Your task to perform on an android device: toggle notifications settings in the gmail app Image 0: 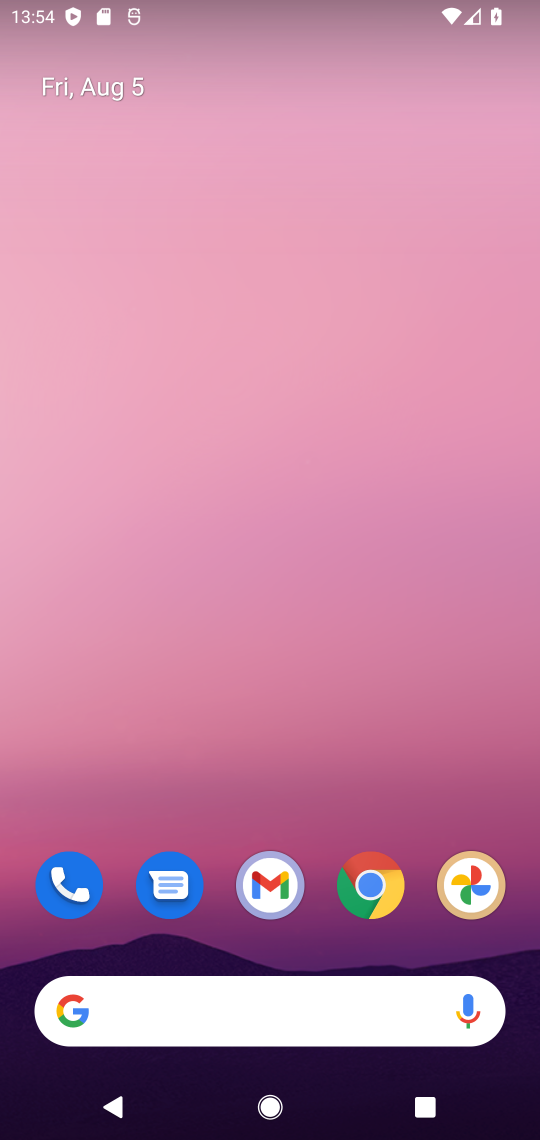
Step 0: click (261, 884)
Your task to perform on an android device: toggle notifications settings in the gmail app Image 1: 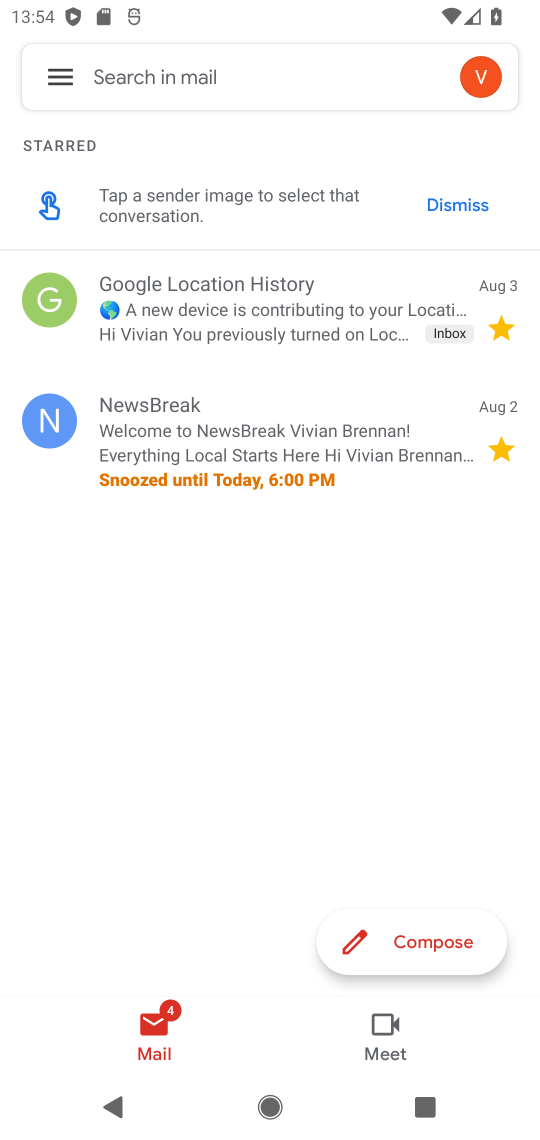
Step 1: click (68, 67)
Your task to perform on an android device: toggle notifications settings in the gmail app Image 2: 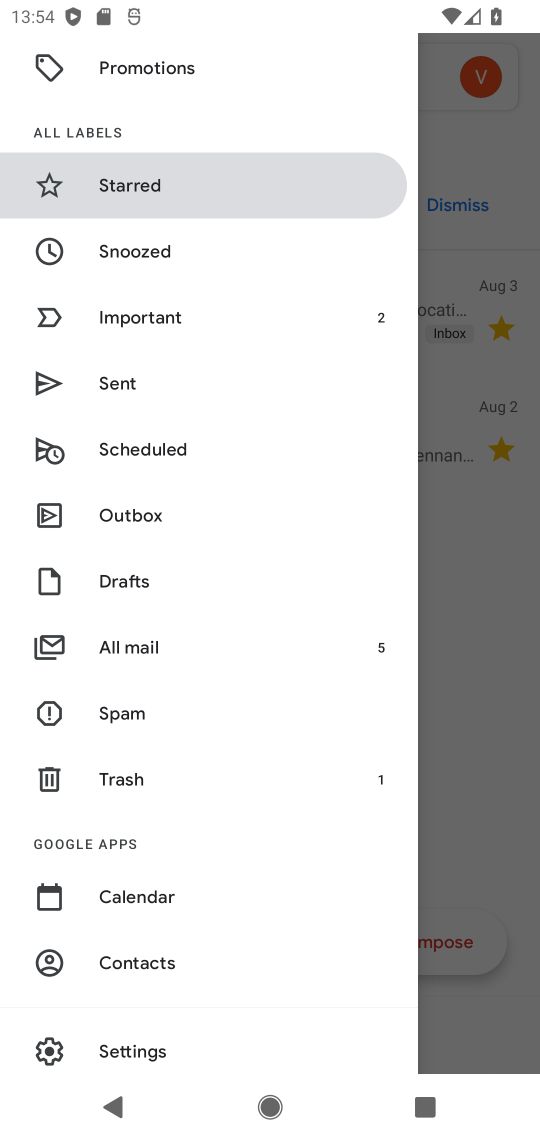
Step 2: click (143, 1050)
Your task to perform on an android device: toggle notifications settings in the gmail app Image 3: 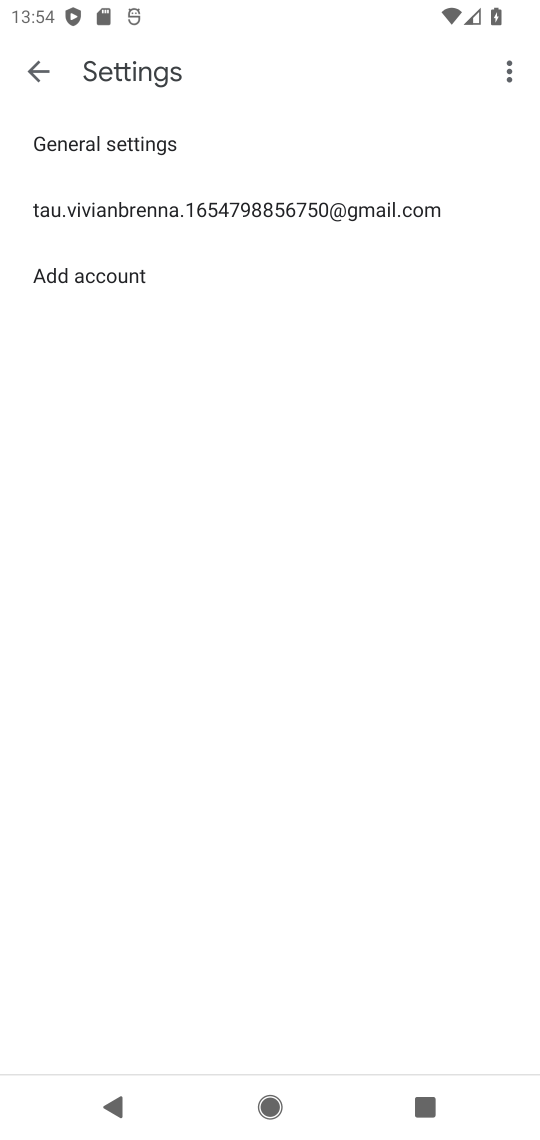
Step 3: click (161, 219)
Your task to perform on an android device: toggle notifications settings in the gmail app Image 4: 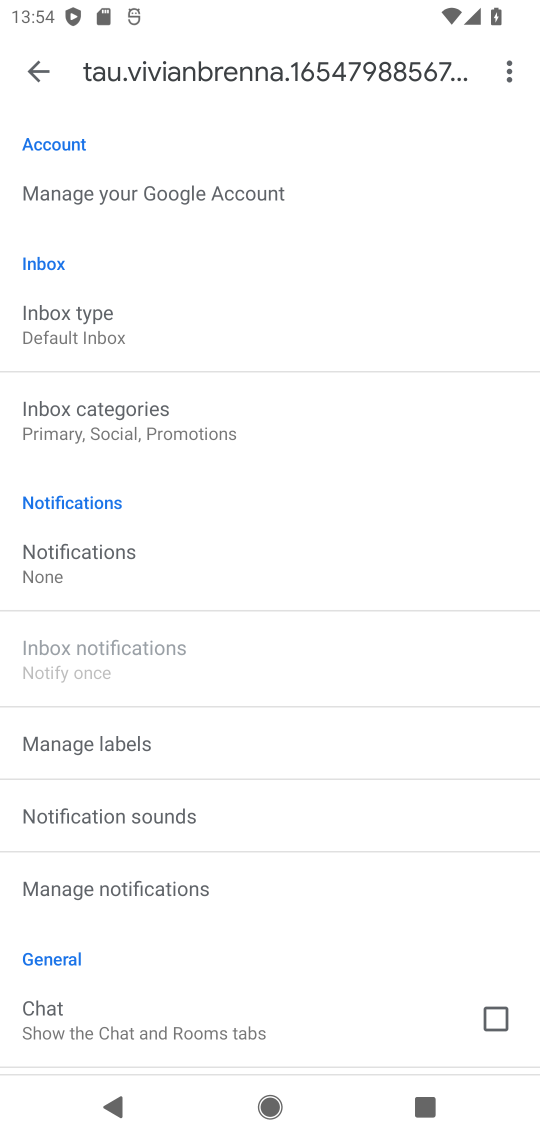
Step 4: click (91, 897)
Your task to perform on an android device: toggle notifications settings in the gmail app Image 5: 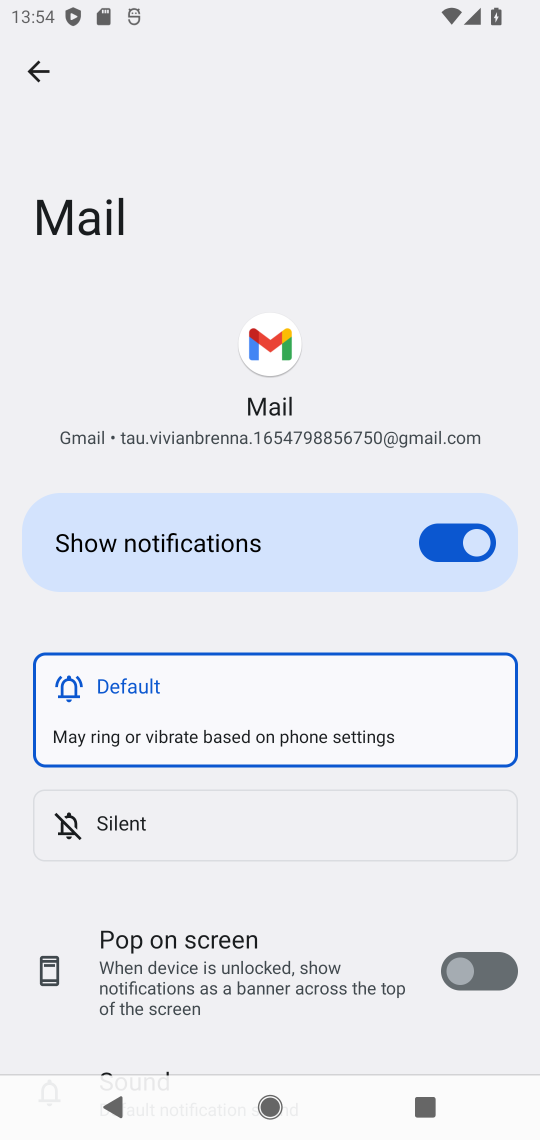
Step 5: click (433, 540)
Your task to perform on an android device: toggle notifications settings in the gmail app Image 6: 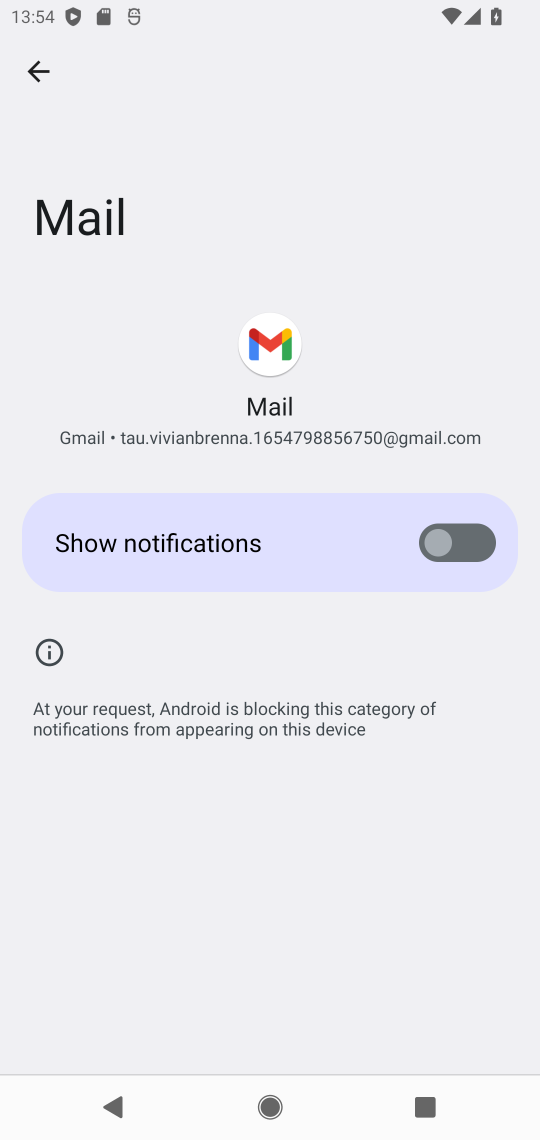
Step 6: task complete